Your task to perform on an android device: Open Google Chrome and click the shortcut for Amazon.com Image 0: 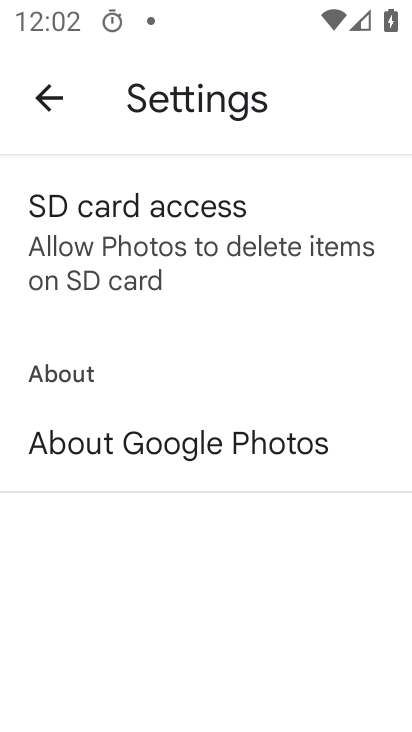
Step 0: press home button
Your task to perform on an android device: Open Google Chrome and click the shortcut for Amazon.com Image 1: 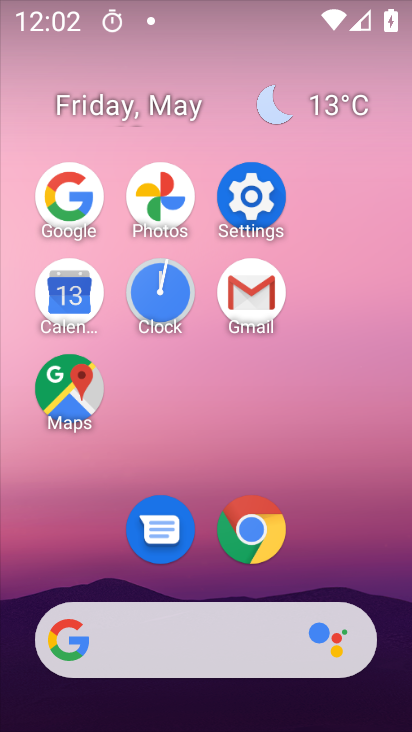
Step 1: click (236, 531)
Your task to perform on an android device: Open Google Chrome and click the shortcut for Amazon.com Image 2: 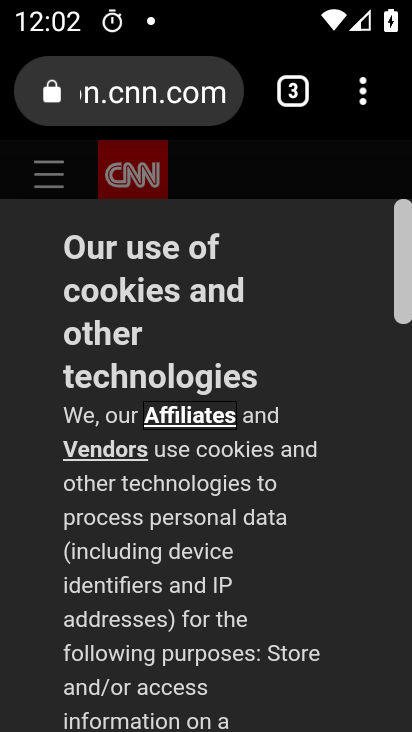
Step 2: click (310, 88)
Your task to perform on an android device: Open Google Chrome and click the shortcut for Amazon.com Image 3: 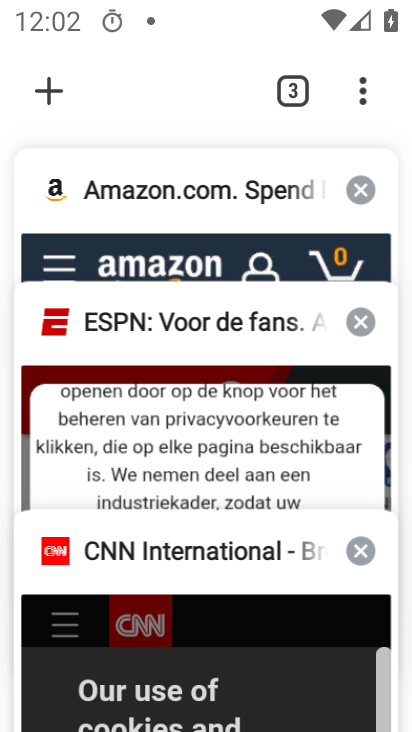
Step 3: click (207, 172)
Your task to perform on an android device: Open Google Chrome and click the shortcut for Amazon.com Image 4: 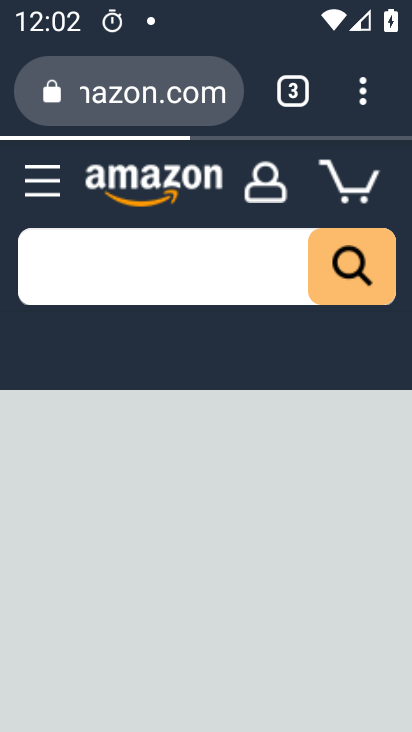
Step 4: click (392, 74)
Your task to perform on an android device: Open Google Chrome and click the shortcut for Amazon.com Image 5: 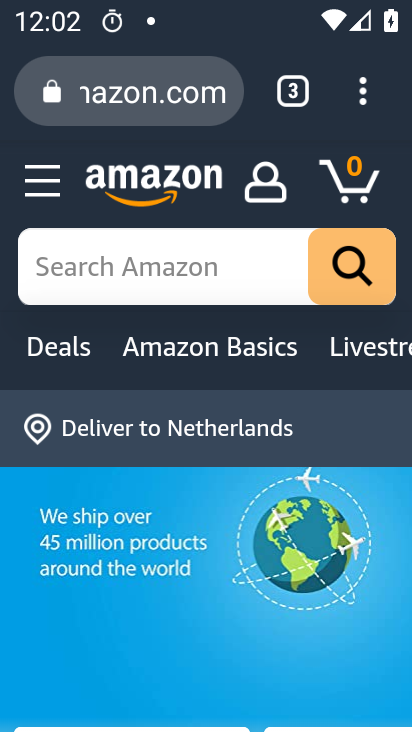
Step 5: click (337, 98)
Your task to perform on an android device: Open Google Chrome and click the shortcut for Amazon.com Image 6: 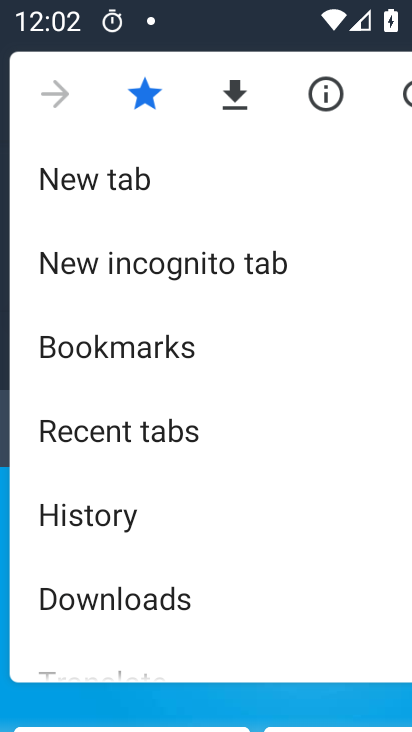
Step 6: drag from (269, 528) to (294, 201)
Your task to perform on an android device: Open Google Chrome and click the shortcut for Amazon.com Image 7: 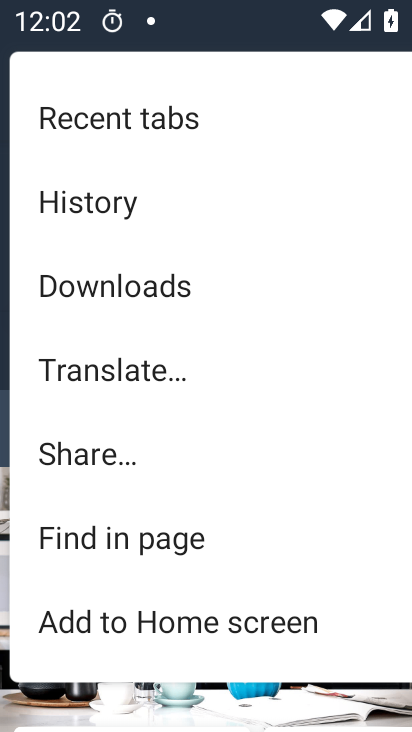
Step 7: click (254, 625)
Your task to perform on an android device: Open Google Chrome and click the shortcut for Amazon.com Image 8: 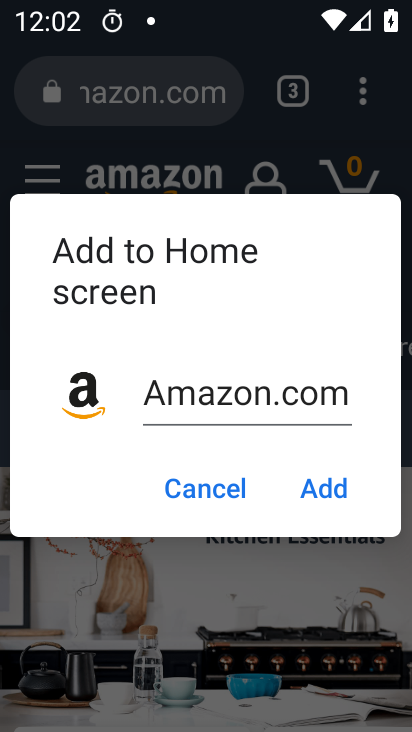
Step 8: click (315, 482)
Your task to perform on an android device: Open Google Chrome and click the shortcut for Amazon.com Image 9: 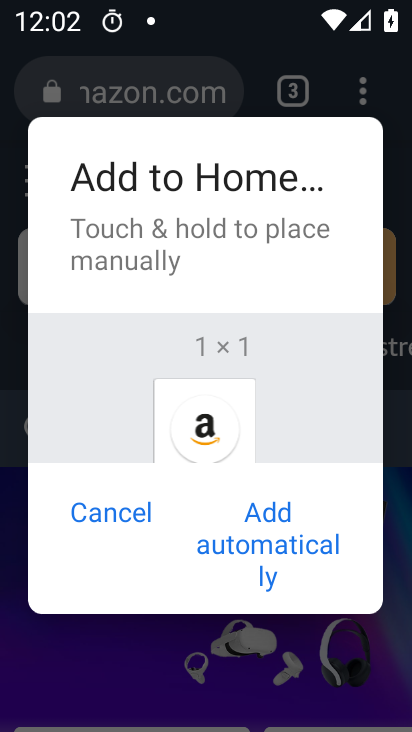
Step 9: click (280, 558)
Your task to perform on an android device: Open Google Chrome and click the shortcut for Amazon.com Image 10: 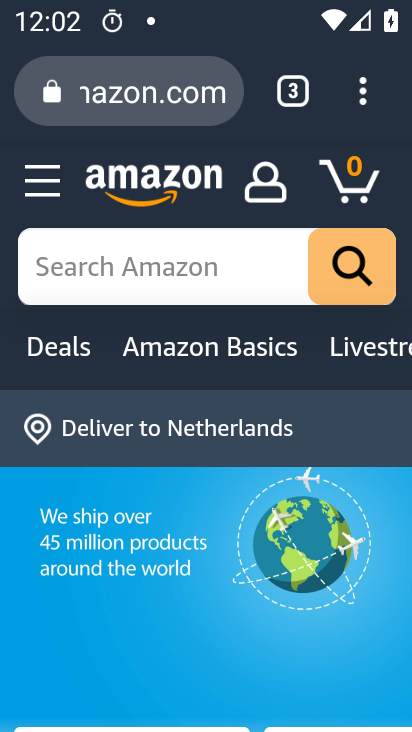
Step 10: task complete